Your task to perform on an android device: change keyboard looks Image 0: 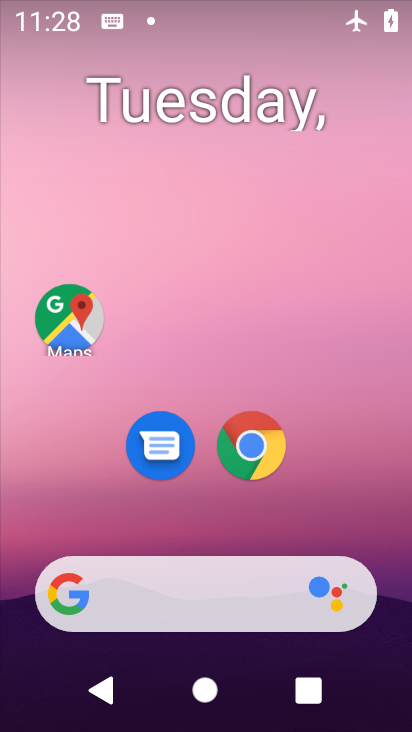
Step 0: drag from (329, 486) to (253, 52)
Your task to perform on an android device: change keyboard looks Image 1: 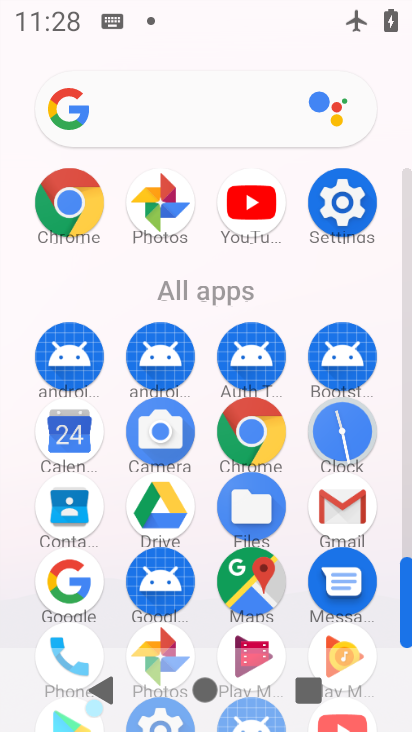
Step 1: drag from (3, 555) to (6, 247)
Your task to perform on an android device: change keyboard looks Image 2: 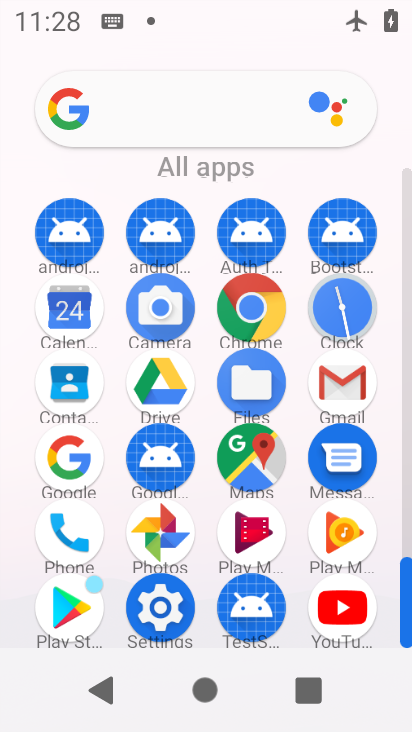
Step 2: click (160, 606)
Your task to perform on an android device: change keyboard looks Image 3: 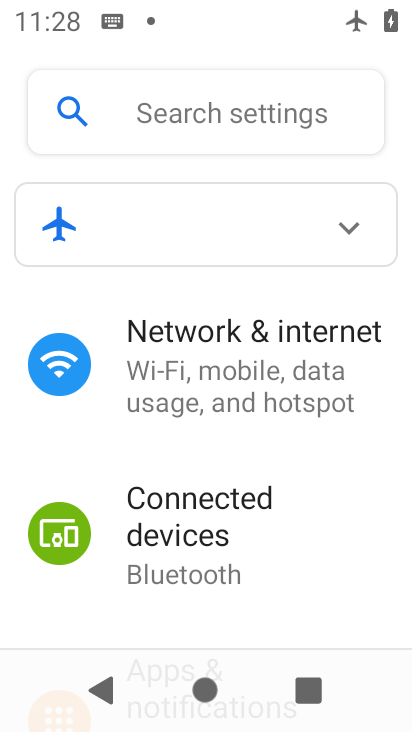
Step 3: drag from (321, 538) to (306, 146)
Your task to perform on an android device: change keyboard looks Image 4: 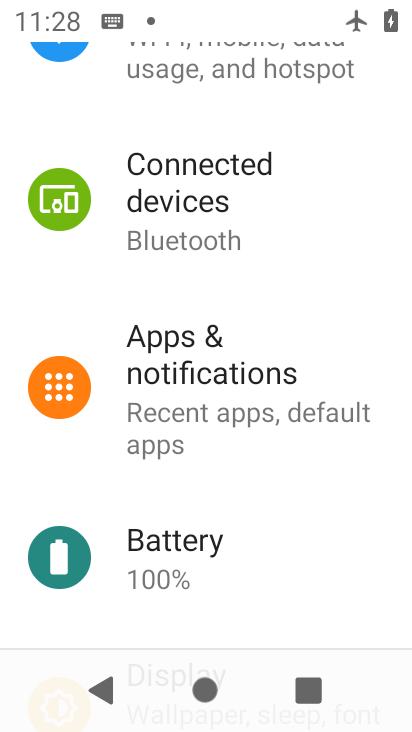
Step 4: drag from (283, 561) to (283, 123)
Your task to perform on an android device: change keyboard looks Image 5: 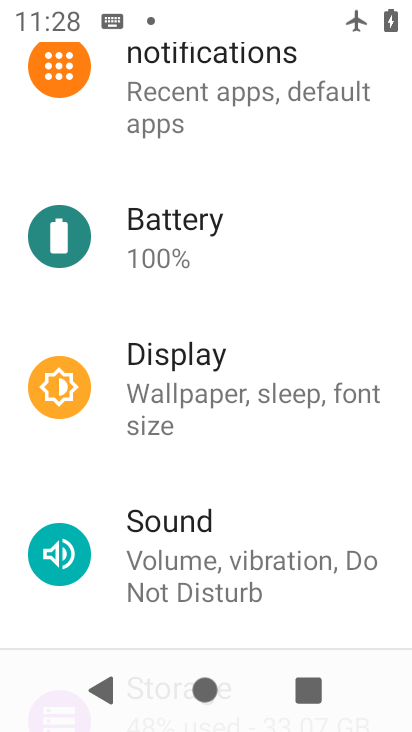
Step 5: drag from (296, 566) to (293, 140)
Your task to perform on an android device: change keyboard looks Image 6: 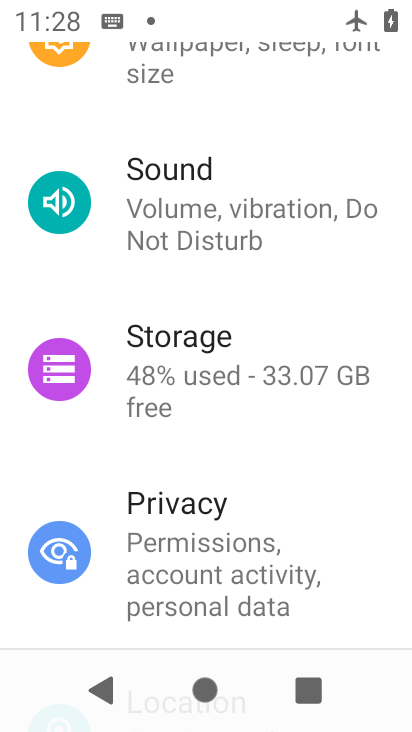
Step 6: drag from (278, 593) to (283, 131)
Your task to perform on an android device: change keyboard looks Image 7: 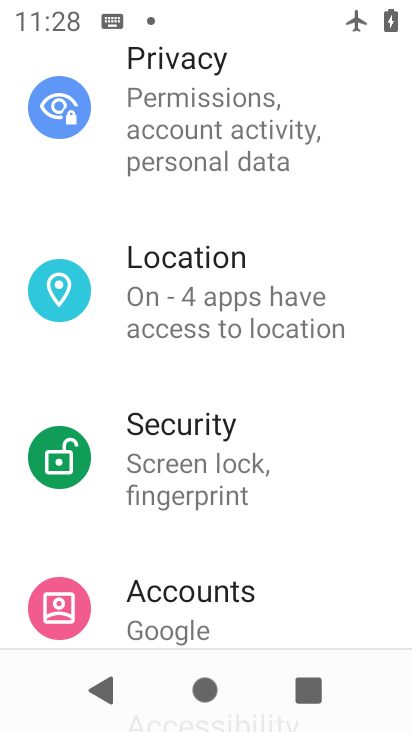
Step 7: drag from (287, 467) to (300, 112)
Your task to perform on an android device: change keyboard looks Image 8: 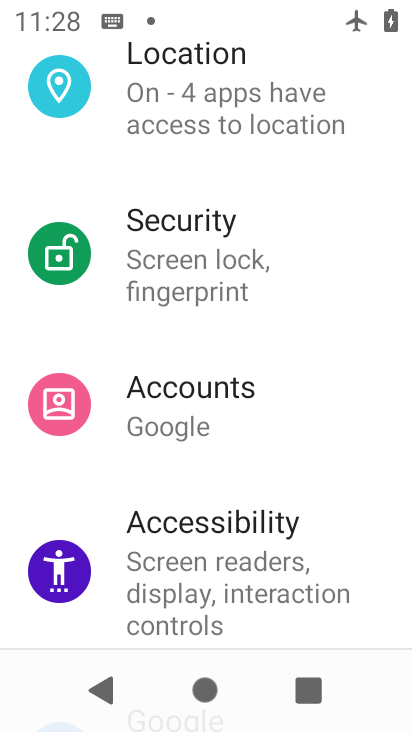
Step 8: drag from (279, 572) to (305, 118)
Your task to perform on an android device: change keyboard looks Image 9: 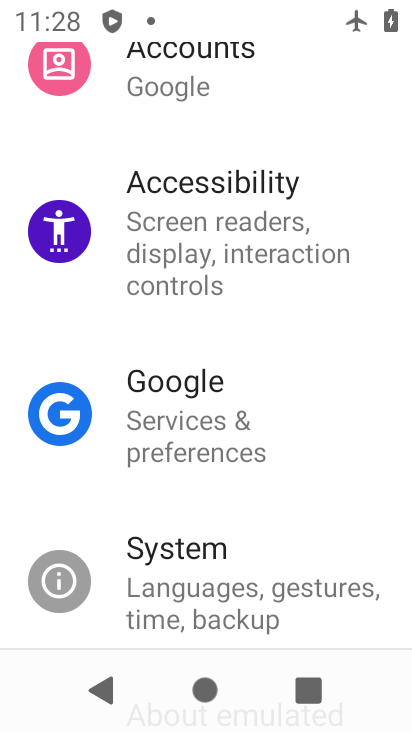
Step 9: drag from (298, 510) to (294, 102)
Your task to perform on an android device: change keyboard looks Image 10: 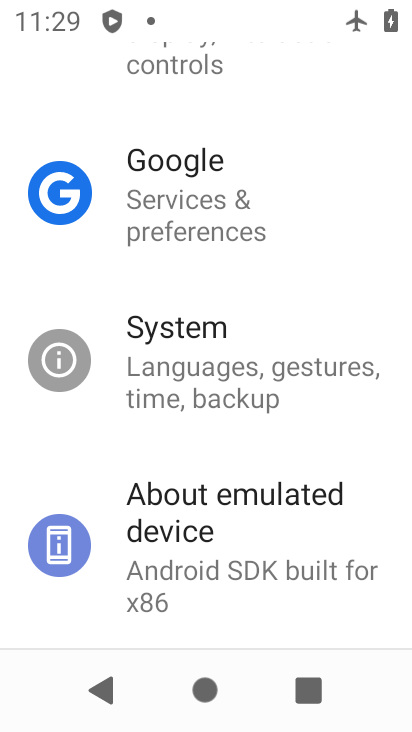
Step 10: click (234, 357)
Your task to perform on an android device: change keyboard looks Image 11: 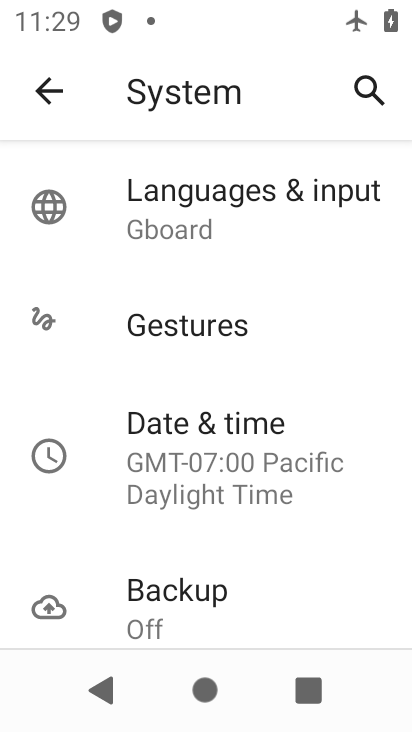
Step 11: click (222, 204)
Your task to perform on an android device: change keyboard looks Image 12: 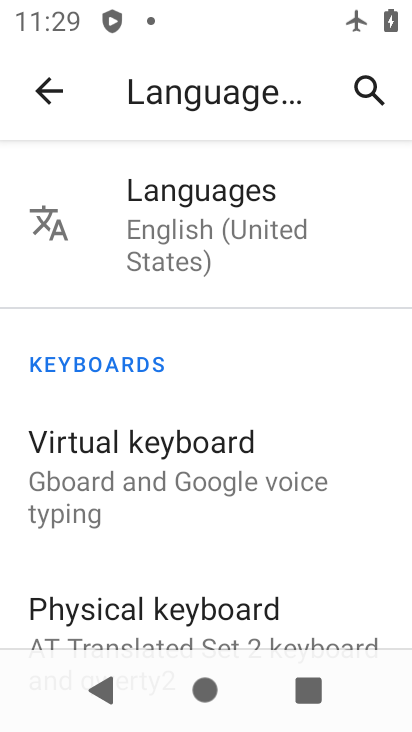
Step 12: click (192, 452)
Your task to perform on an android device: change keyboard looks Image 13: 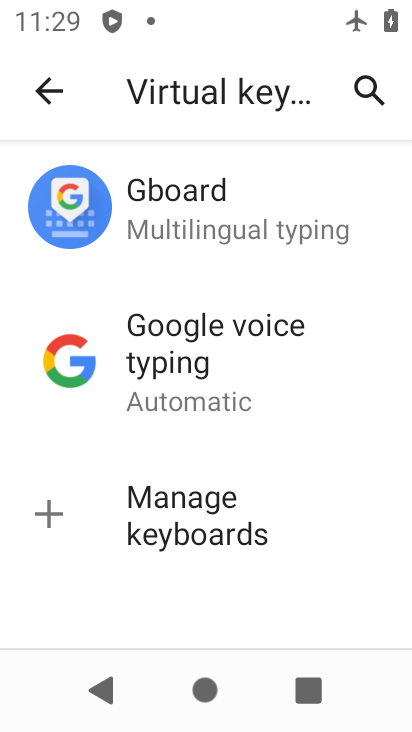
Step 13: click (271, 179)
Your task to perform on an android device: change keyboard looks Image 14: 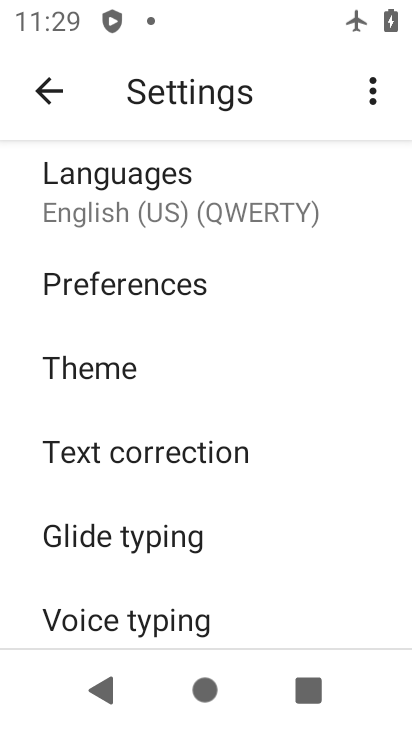
Step 14: click (127, 372)
Your task to perform on an android device: change keyboard looks Image 15: 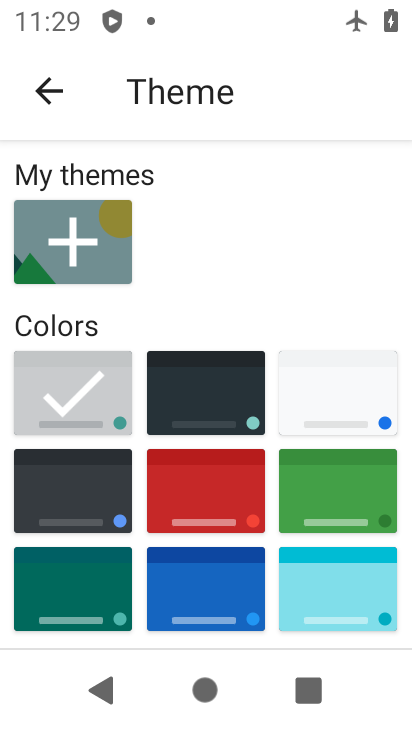
Step 15: click (335, 405)
Your task to perform on an android device: change keyboard looks Image 16: 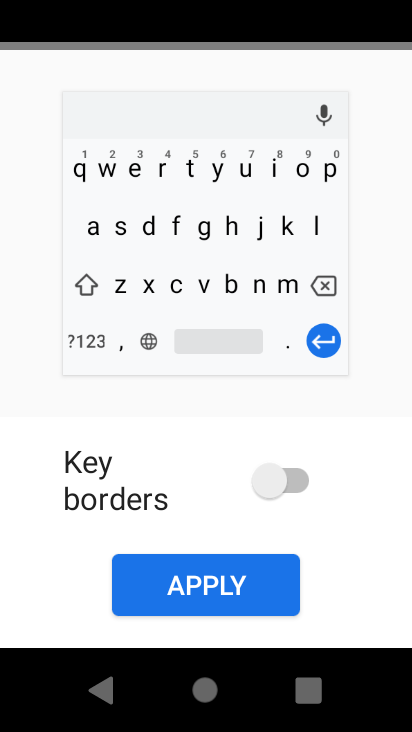
Step 16: click (184, 579)
Your task to perform on an android device: change keyboard looks Image 17: 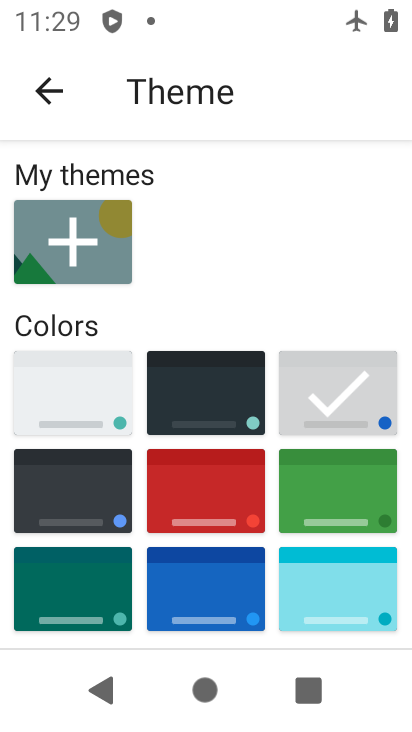
Step 17: task complete